Your task to perform on an android device: Go to ESPN.com Image 0: 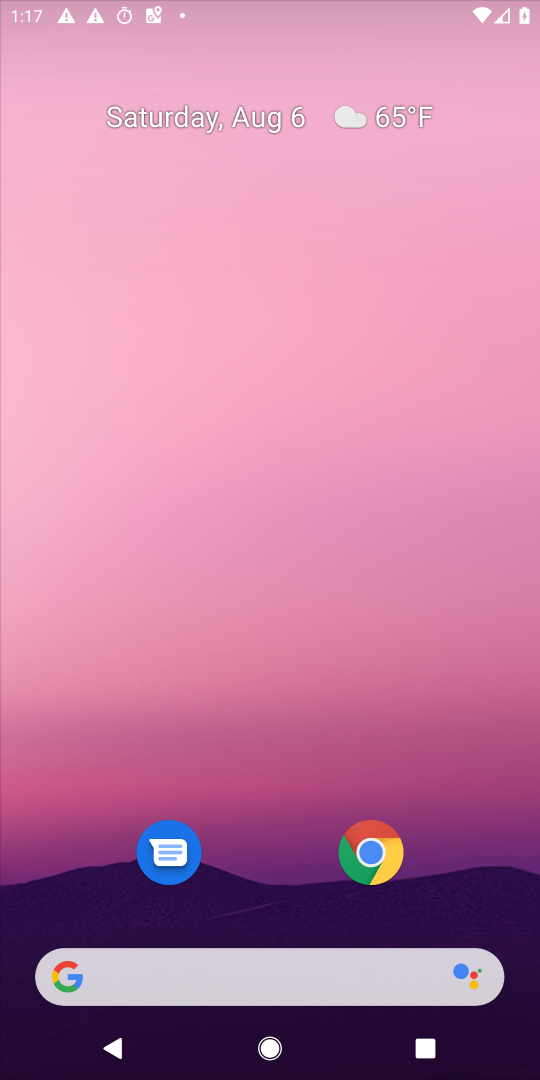
Step 0: press home button
Your task to perform on an android device: Go to ESPN.com Image 1: 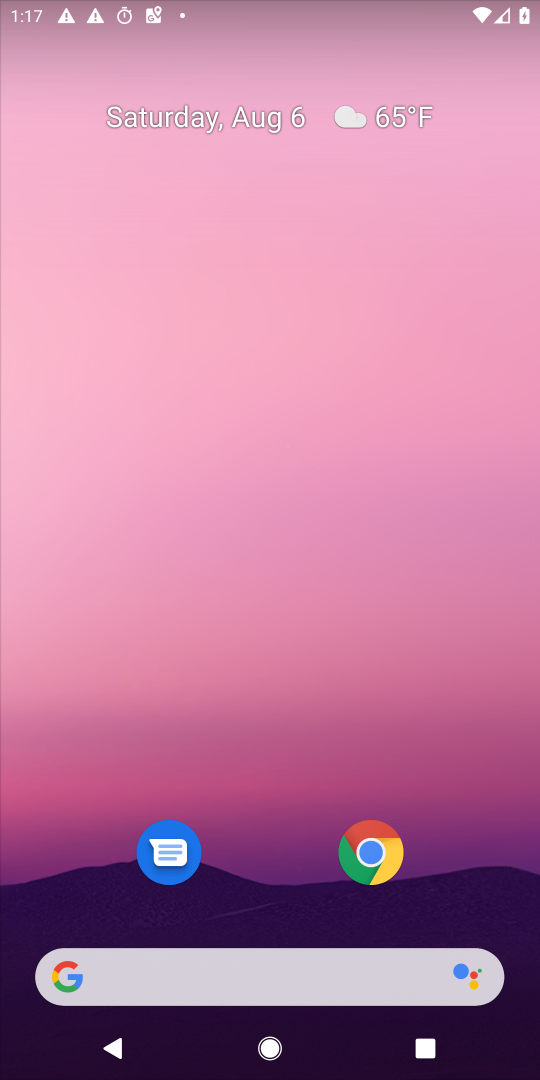
Step 1: drag from (364, 997) to (276, 92)
Your task to perform on an android device: Go to ESPN.com Image 2: 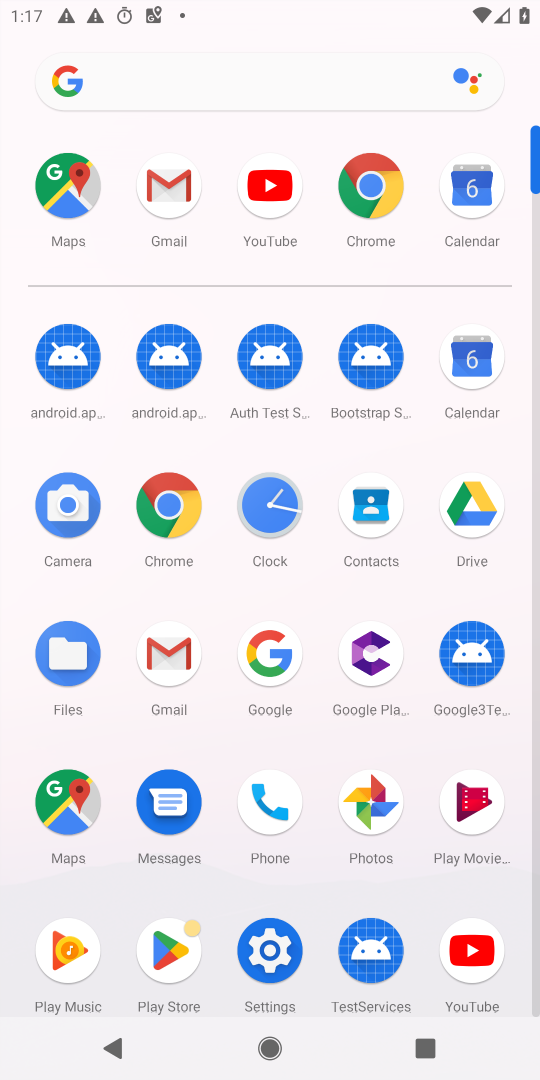
Step 2: click (366, 182)
Your task to perform on an android device: Go to ESPN.com Image 3: 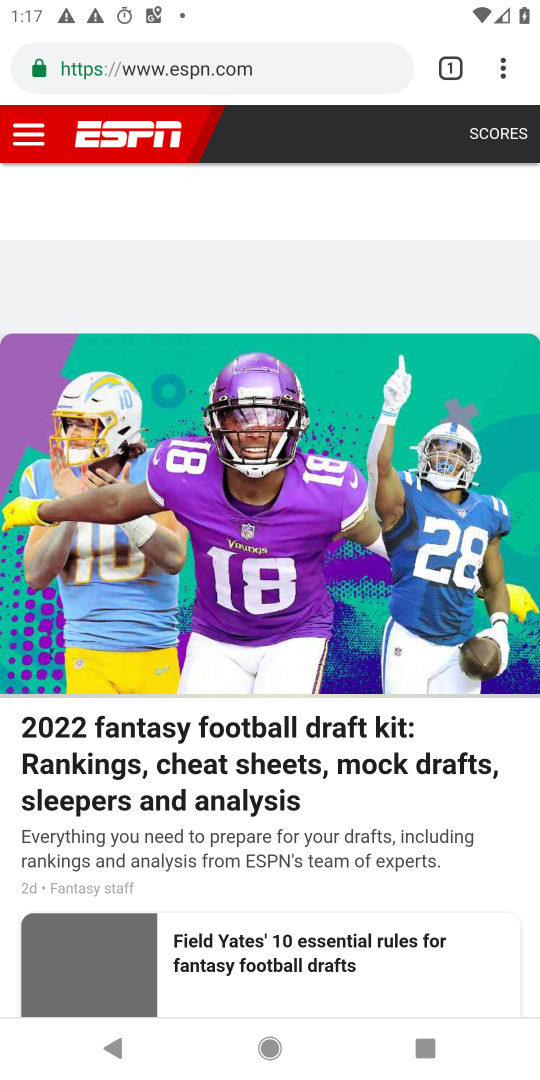
Step 3: click (298, 83)
Your task to perform on an android device: Go to ESPN.com Image 4: 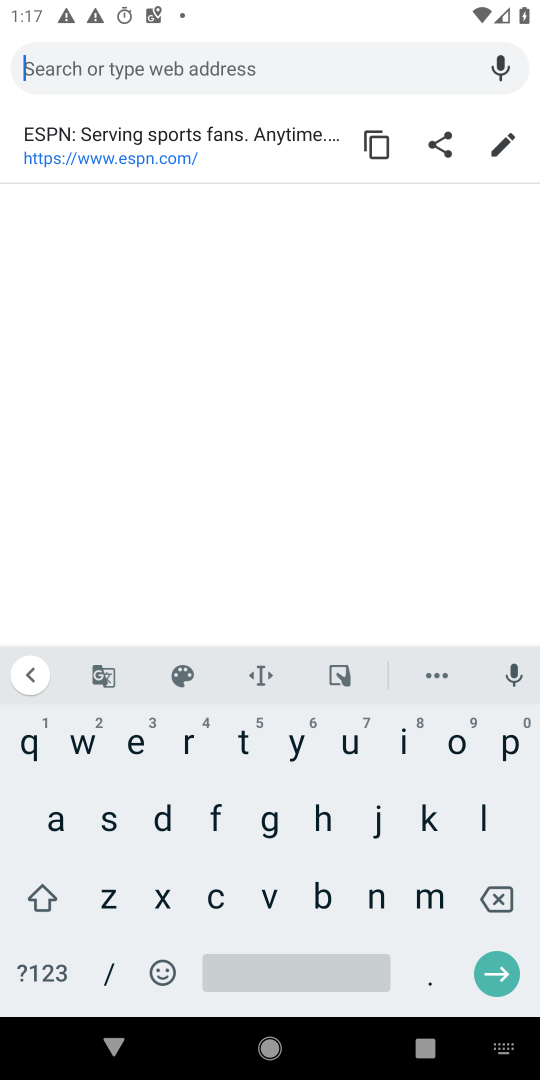
Step 4: click (168, 133)
Your task to perform on an android device: Go to ESPN.com Image 5: 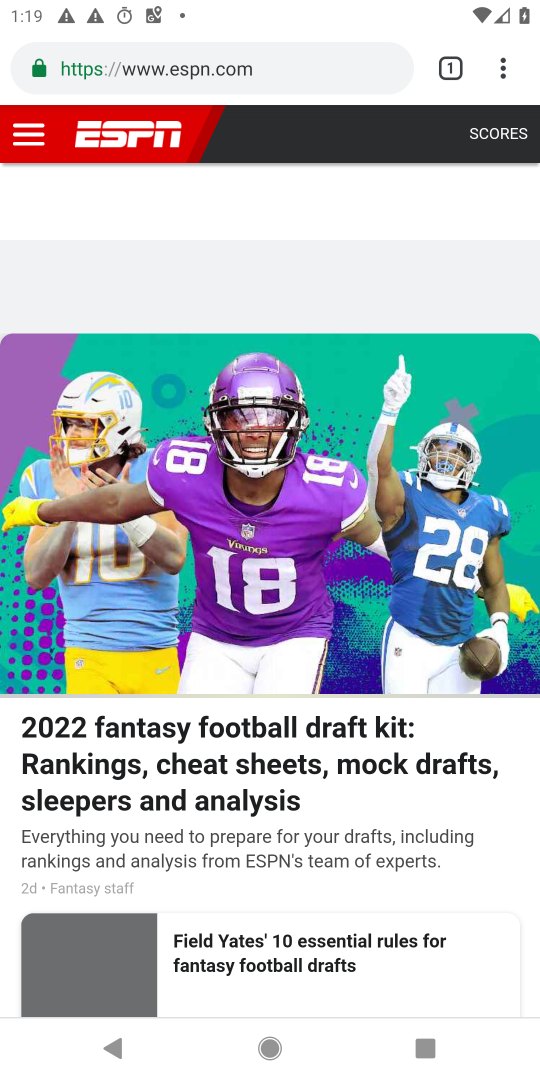
Step 5: task complete